Your task to perform on an android device: Open the calendar app, open the side menu, and click the "Day" option Image 0: 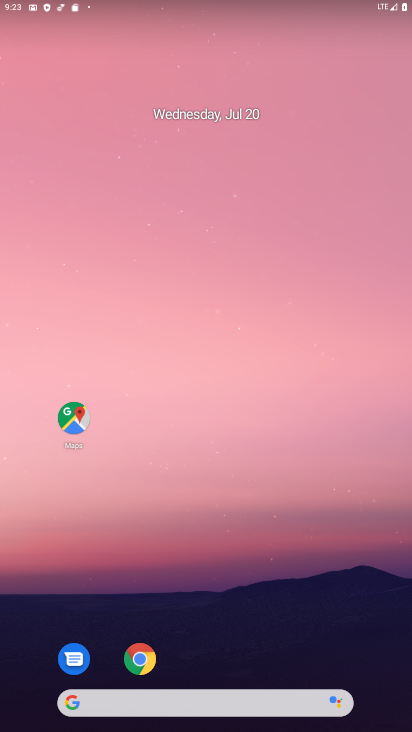
Step 0: drag from (352, 559) to (169, 552)
Your task to perform on an android device: Open the calendar app, open the side menu, and click the "Day" option Image 1: 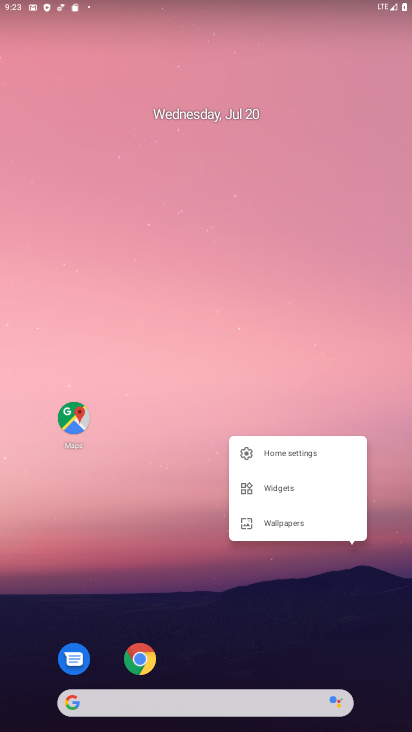
Step 1: click (222, 606)
Your task to perform on an android device: Open the calendar app, open the side menu, and click the "Day" option Image 2: 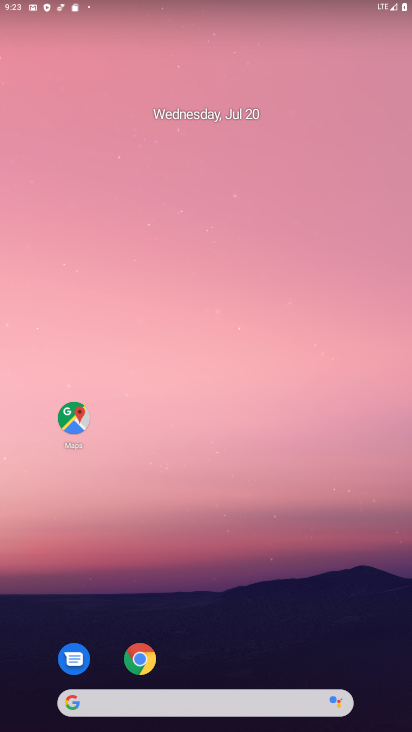
Step 2: drag from (222, 606) to (305, 166)
Your task to perform on an android device: Open the calendar app, open the side menu, and click the "Day" option Image 3: 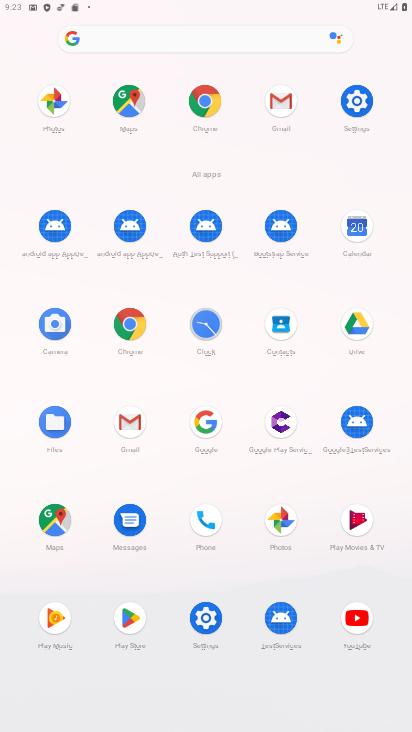
Step 3: click (352, 229)
Your task to perform on an android device: Open the calendar app, open the side menu, and click the "Day" option Image 4: 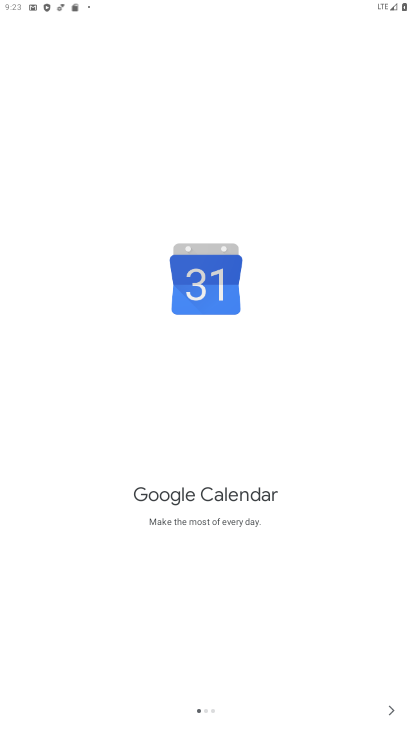
Step 4: click (396, 708)
Your task to perform on an android device: Open the calendar app, open the side menu, and click the "Day" option Image 5: 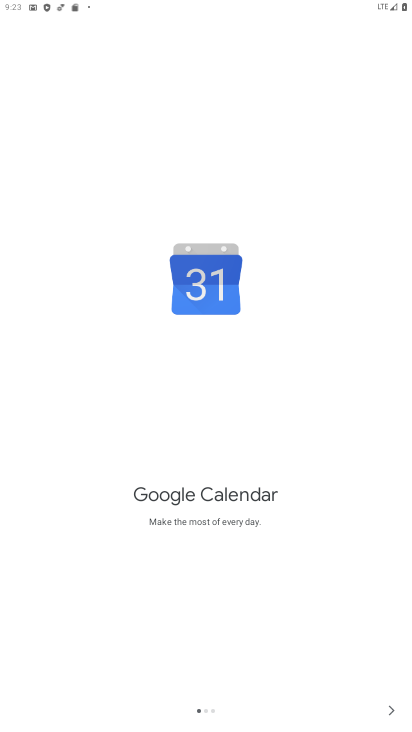
Step 5: click (396, 708)
Your task to perform on an android device: Open the calendar app, open the side menu, and click the "Day" option Image 6: 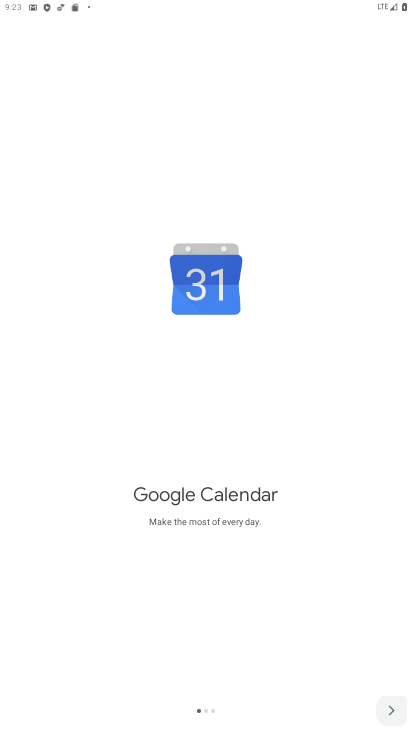
Step 6: click (396, 708)
Your task to perform on an android device: Open the calendar app, open the side menu, and click the "Day" option Image 7: 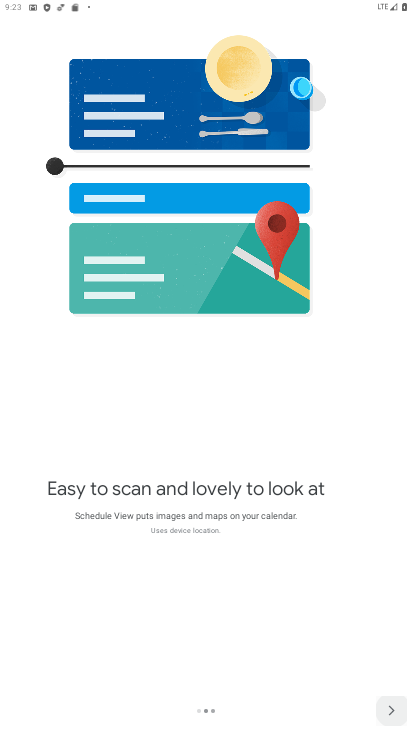
Step 7: click (396, 708)
Your task to perform on an android device: Open the calendar app, open the side menu, and click the "Day" option Image 8: 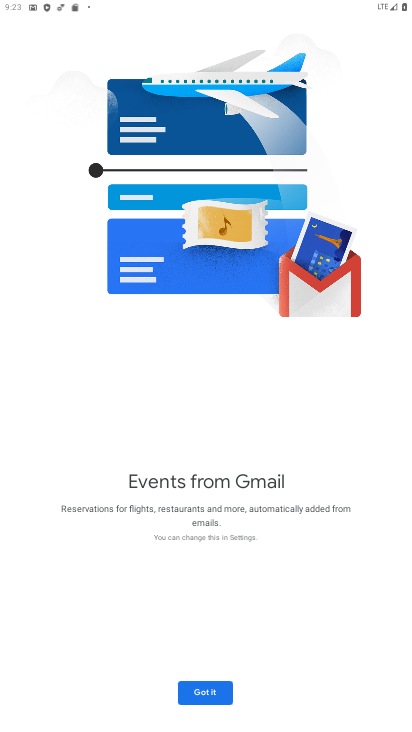
Step 8: click (209, 688)
Your task to perform on an android device: Open the calendar app, open the side menu, and click the "Day" option Image 9: 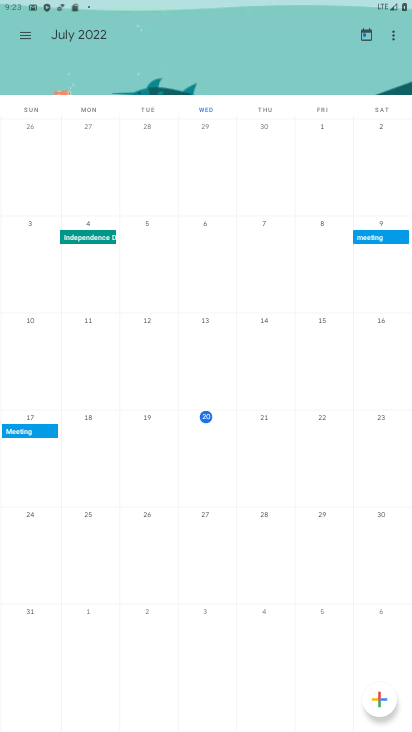
Step 9: click (23, 31)
Your task to perform on an android device: Open the calendar app, open the side menu, and click the "Day" option Image 10: 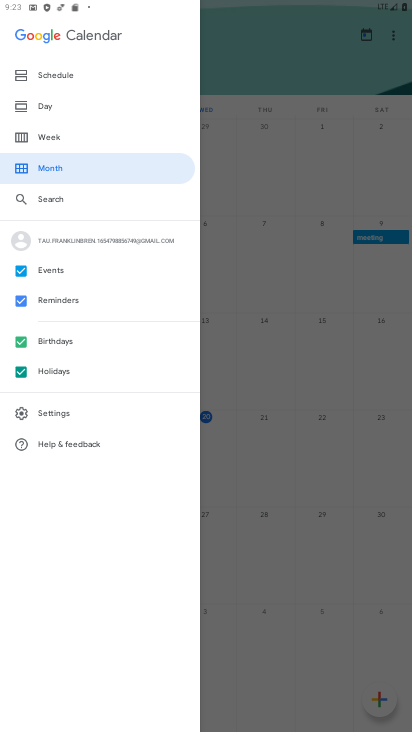
Step 10: click (44, 104)
Your task to perform on an android device: Open the calendar app, open the side menu, and click the "Day" option Image 11: 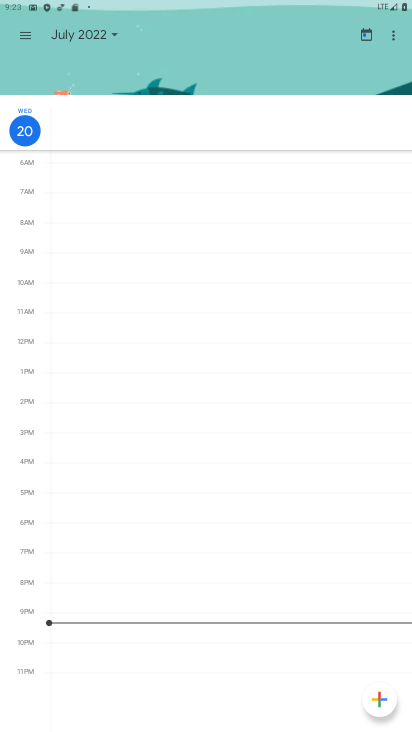
Step 11: task complete